Your task to perform on an android device: Add "dell xps" to the cart on costco Image 0: 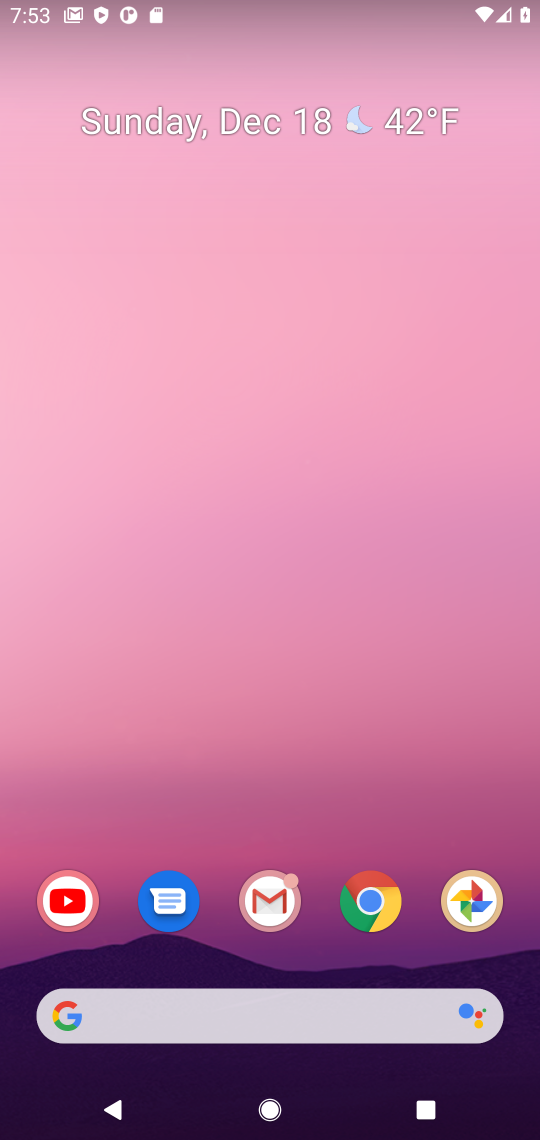
Step 0: click (358, 910)
Your task to perform on an android device: Add "dell xps" to the cart on costco Image 1: 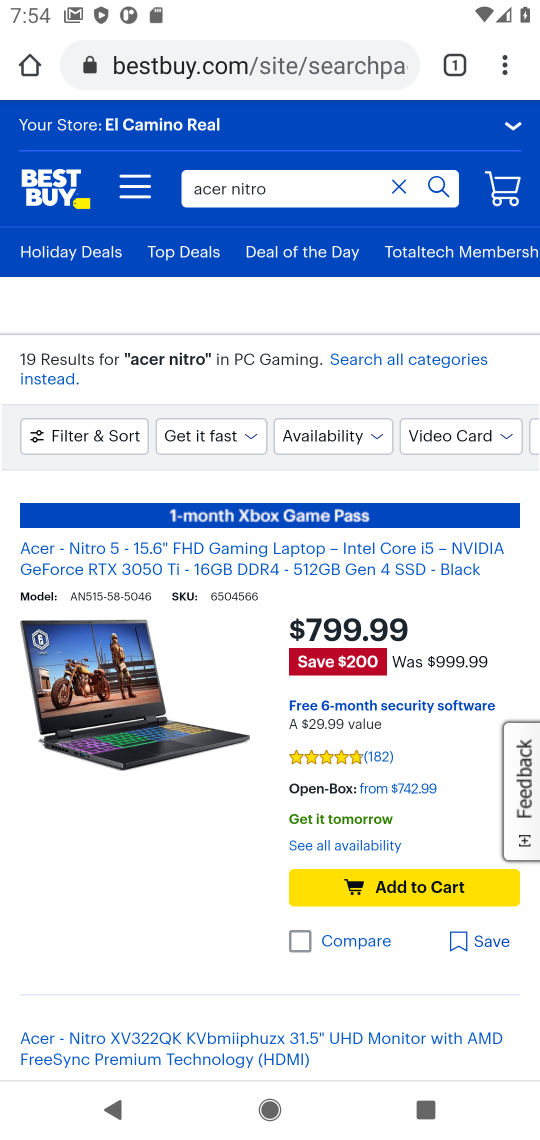
Step 1: click (173, 77)
Your task to perform on an android device: Add "dell xps" to the cart on costco Image 2: 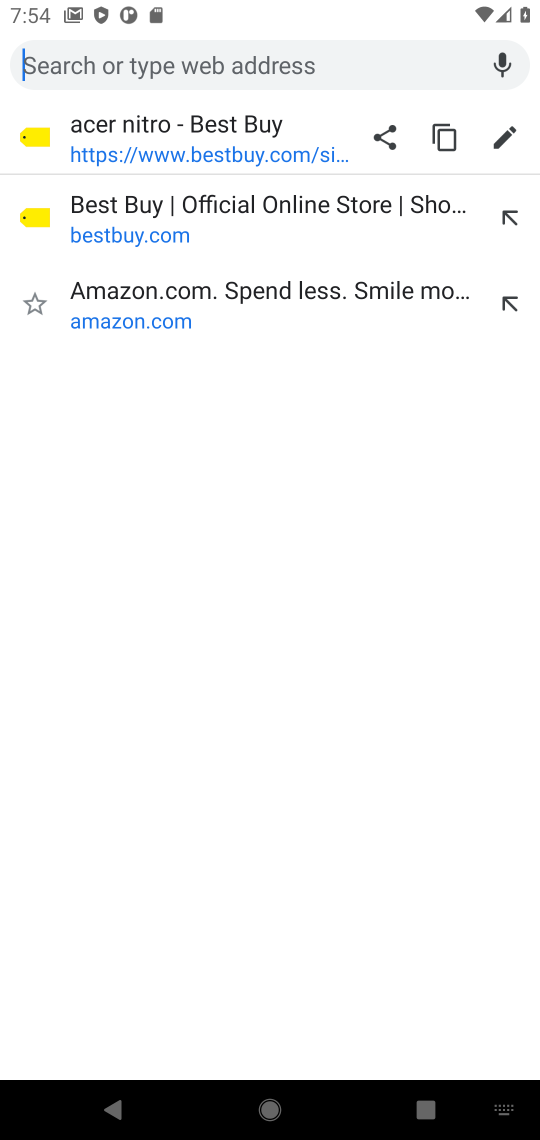
Step 2: type "costco"
Your task to perform on an android device: Add "dell xps" to the cart on costco Image 3: 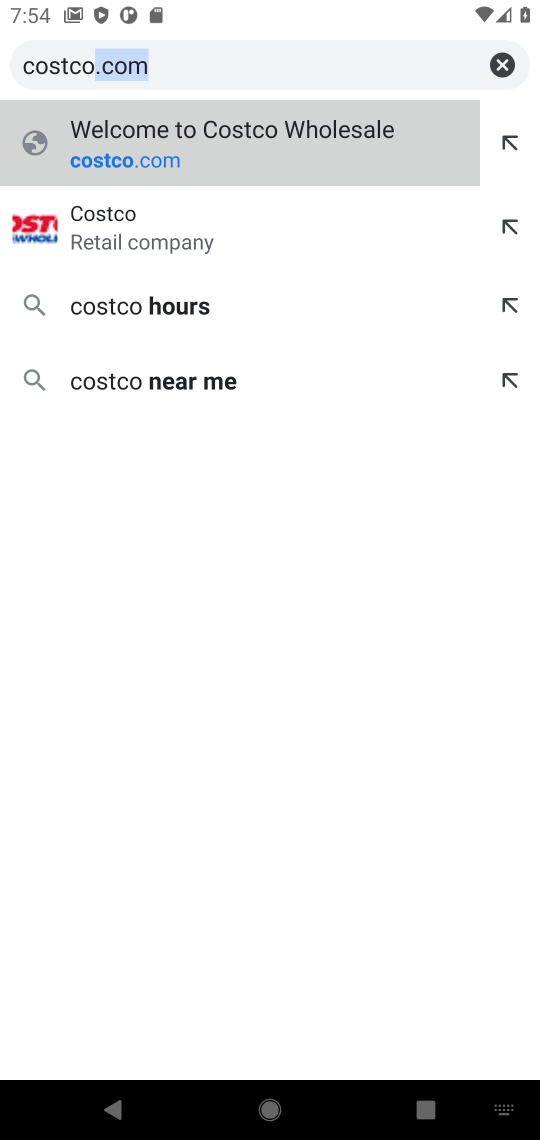
Step 3: click (216, 133)
Your task to perform on an android device: Add "dell xps" to the cart on costco Image 4: 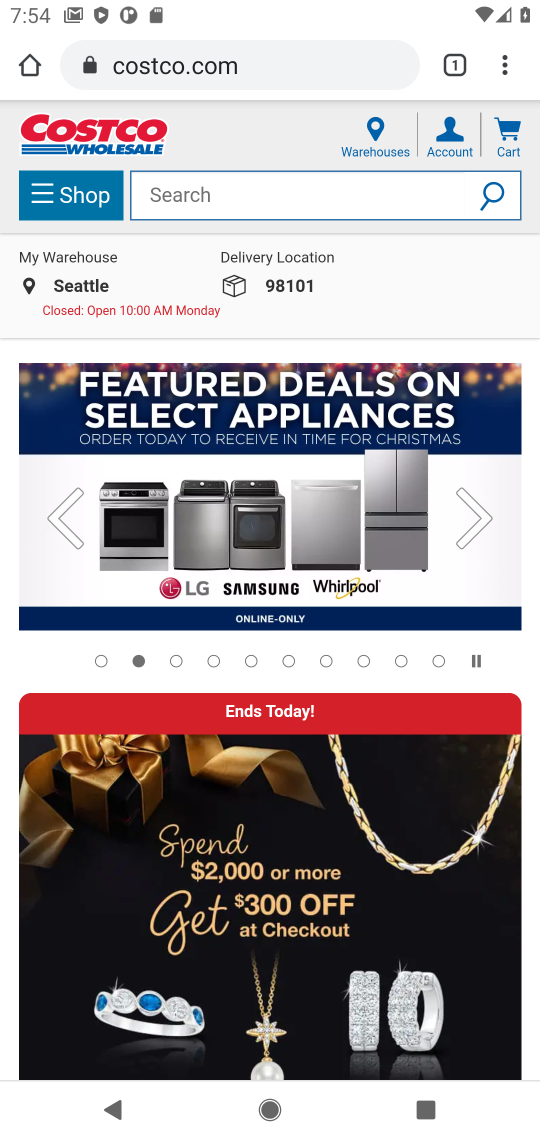
Step 4: click (271, 198)
Your task to perform on an android device: Add "dell xps" to the cart on costco Image 5: 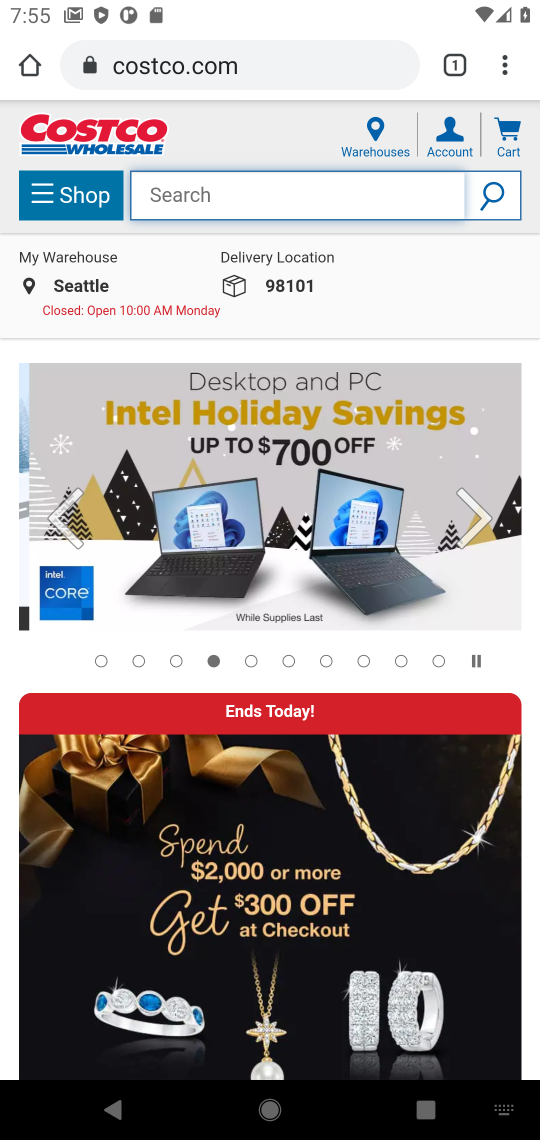
Step 5: type "dell xps"
Your task to perform on an android device: Add "dell xps" to the cart on costco Image 6: 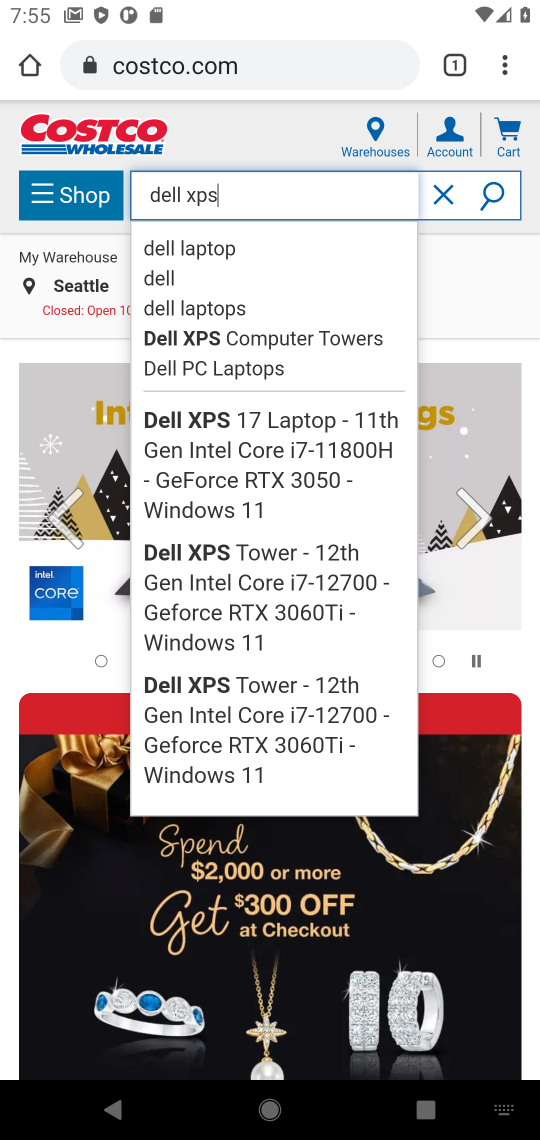
Step 6: click (246, 233)
Your task to perform on an android device: Add "dell xps" to the cart on costco Image 7: 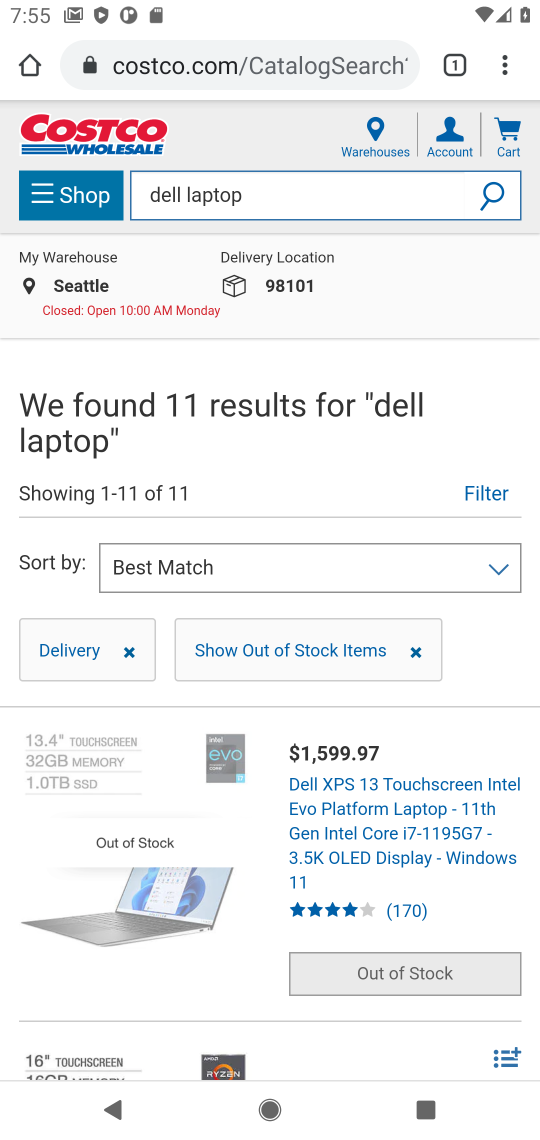
Step 7: click (405, 851)
Your task to perform on an android device: Add "dell xps" to the cart on costco Image 8: 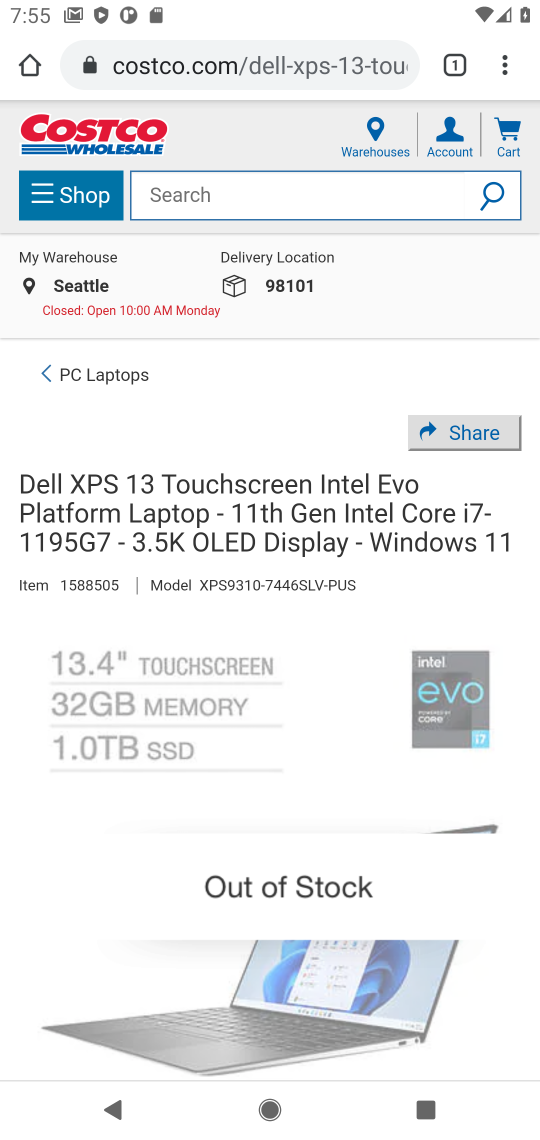
Step 8: task complete